Your task to perform on an android device: check storage Image 0: 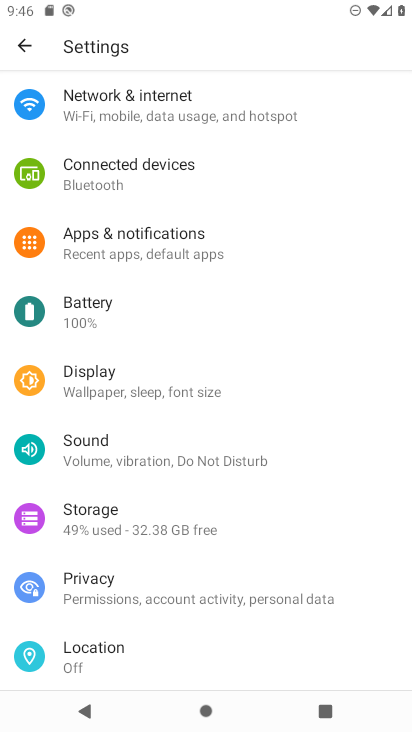
Step 0: click (80, 508)
Your task to perform on an android device: check storage Image 1: 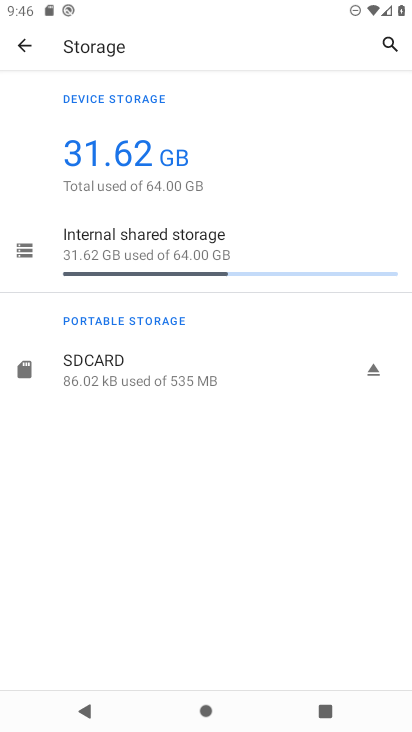
Step 1: task complete